Your task to perform on an android device: add a label to a message in the gmail app Image 0: 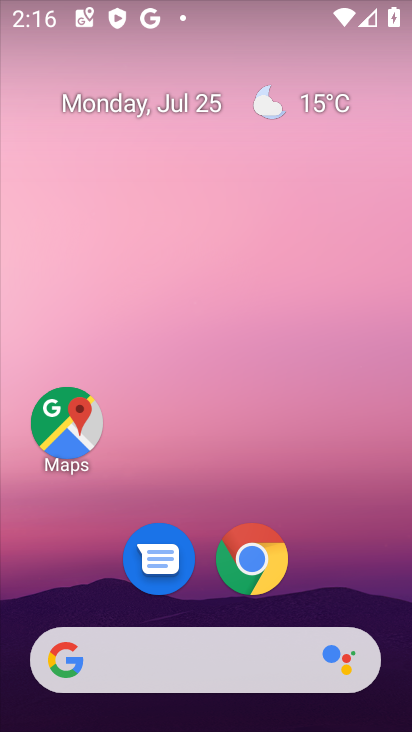
Step 0: drag from (88, 596) to (192, 12)
Your task to perform on an android device: add a label to a message in the gmail app Image 1: 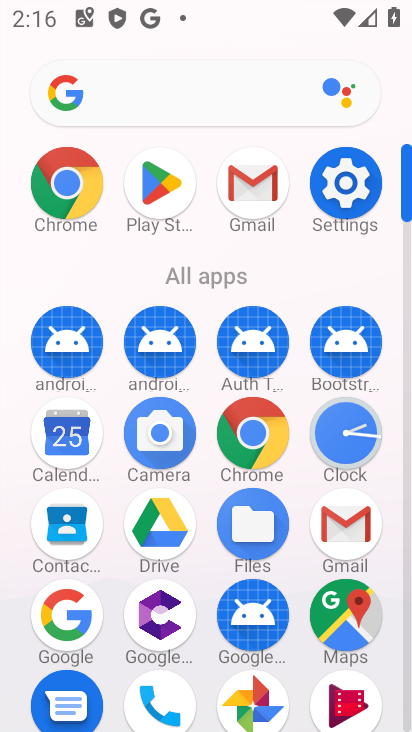
Step 1: click (255, 174)
Your task to perform on an android device: add a label to a message in the gmail app Image 2: 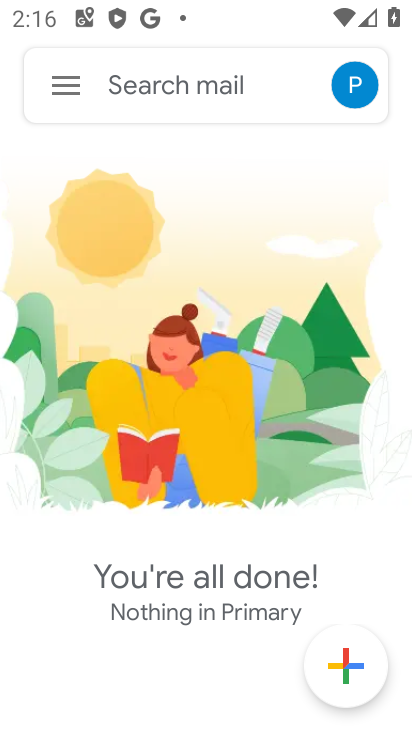
Step 2: click (53, 75)
Your task to perform on an android device: add a label to a message in the gmail app Image 3: 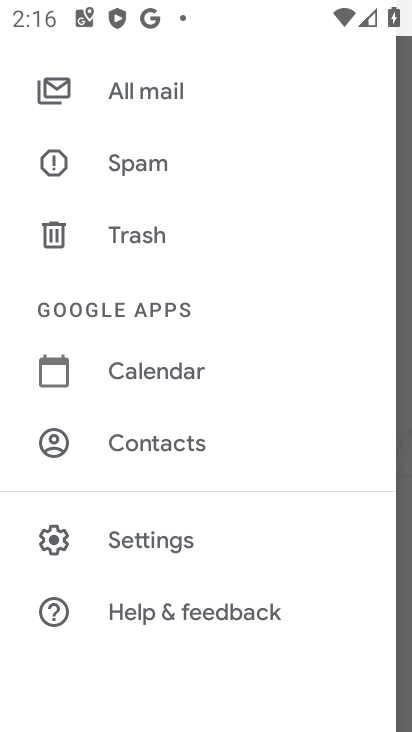
Step 3: drag from (222, 137) to (217, 652)
Your task to perform on an android device: add a label to a message in the gmail app Image 4: 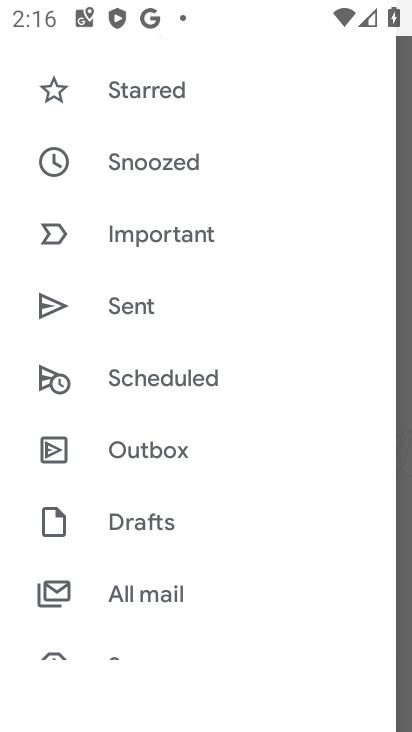
Step 4: click (195, 165)
Your task to perform on an android device: add a label to a message in the gmail app Image 5: 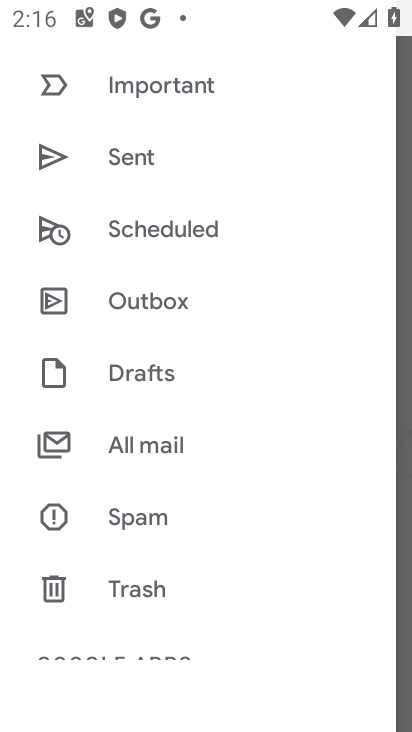
Step 5: click (182, 438)
Your task to perform on an android device: add a label to a message in the gmail app Image 6: 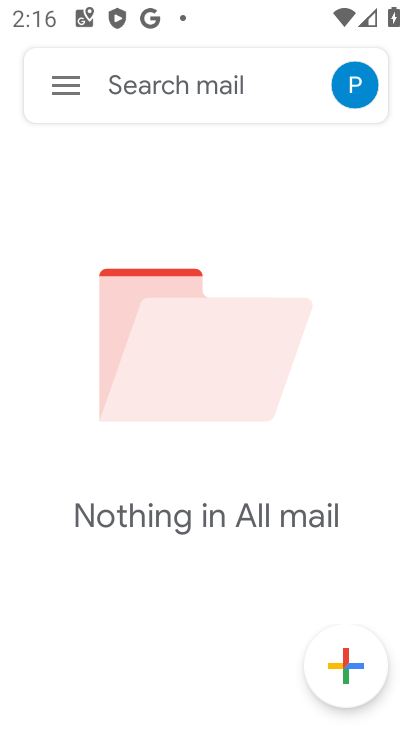
Step 6: task complete